Your task to perform on an android device: change the clock display to show seconds Image 0: 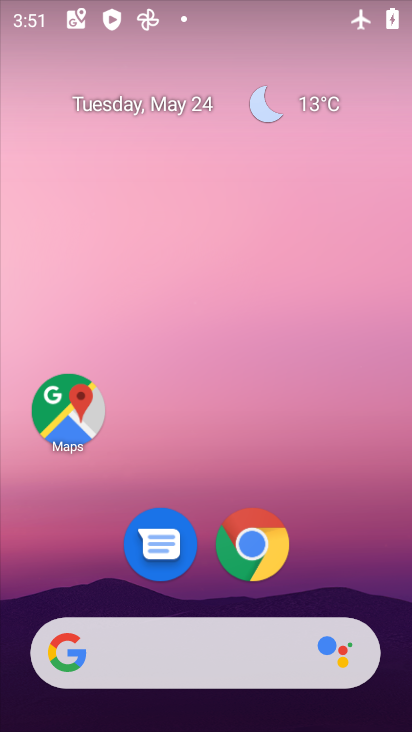
Step 0: drag from (349, 572) to (322, 40)
Your task to perform on an android device: change the clock display to show seconds Image 1: 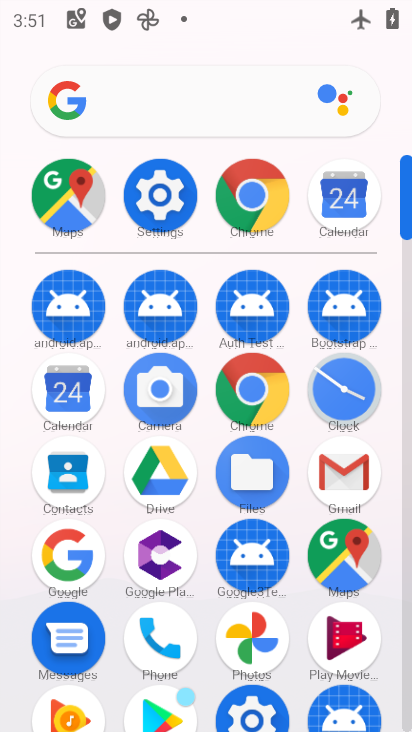
Step 1: click (351, 386)
Your task to perform on an android device: change the clock display to show seconds Image 2: 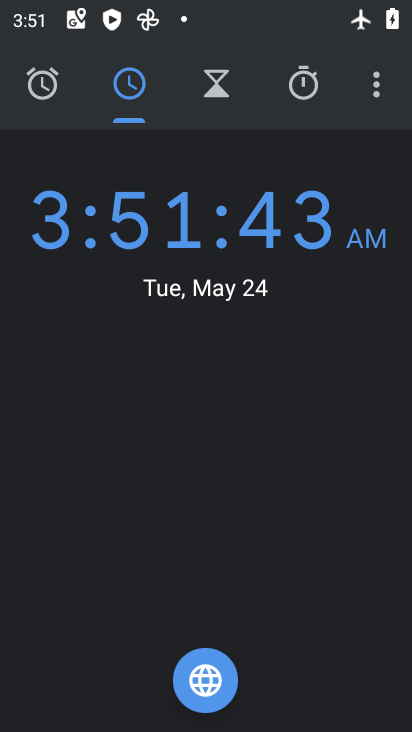
Step 2: click (377, 96)
Your task to perform on an android device: change the clock display to show seconds Image 3: 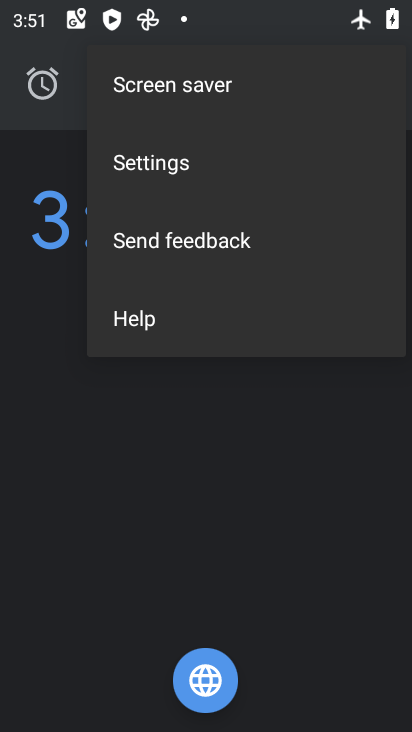
Step 3: click (133, 150)
Your task to perform on an android device: change the clock display to show seconds Image 4: 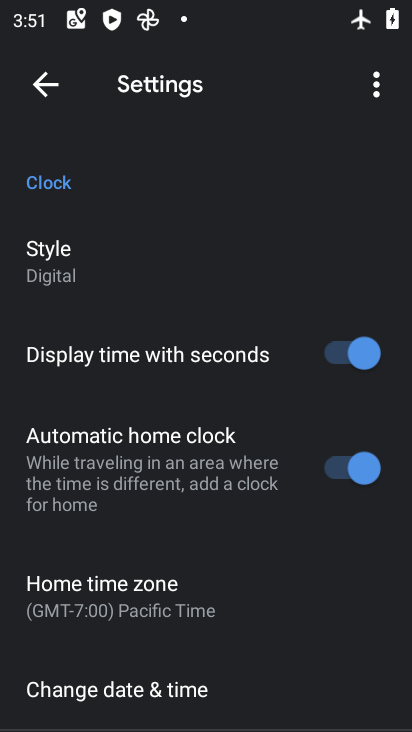
Step 4: task complete